Your task to perform on an android device: Go to accessibility settings Image 0: 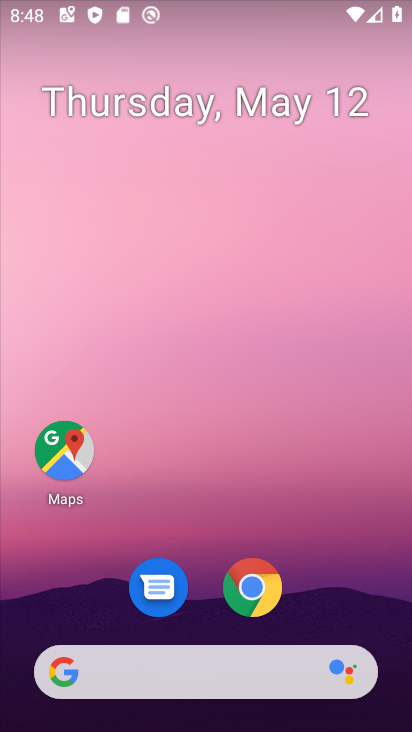
Step 0: drag from (326, 610) to (290, 220)
Your task to perform on an android device: Go to accessibility settings Image 1: 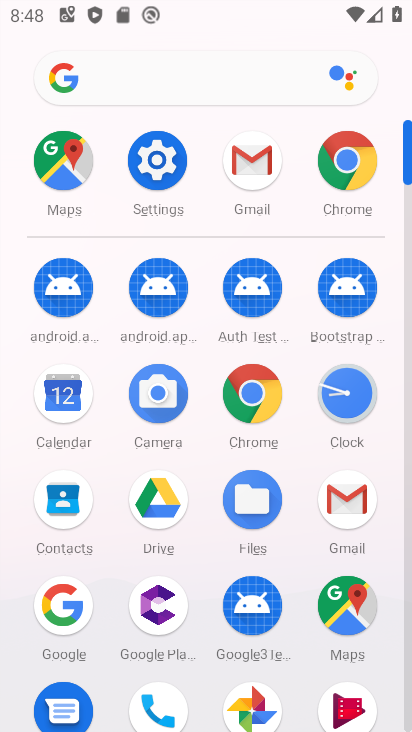
Step 1: click (168, 163)
Your task to perform on an android device: Go to accessibility settings Image 2: 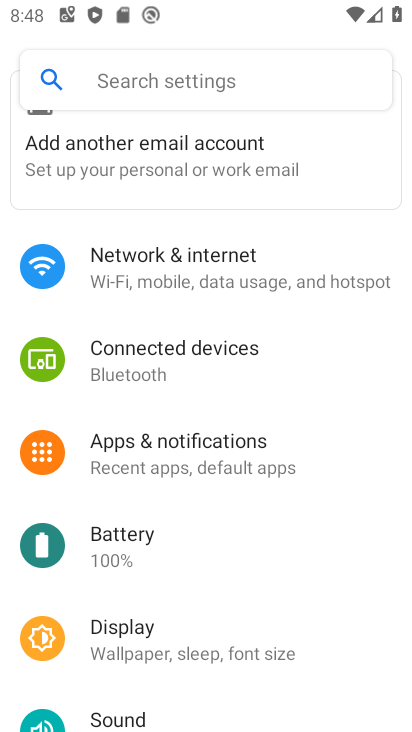
Step 2: drag from (217, 632) to (320, 116)
Your task to perform on an android device: Go to accessibility settings Image 3: 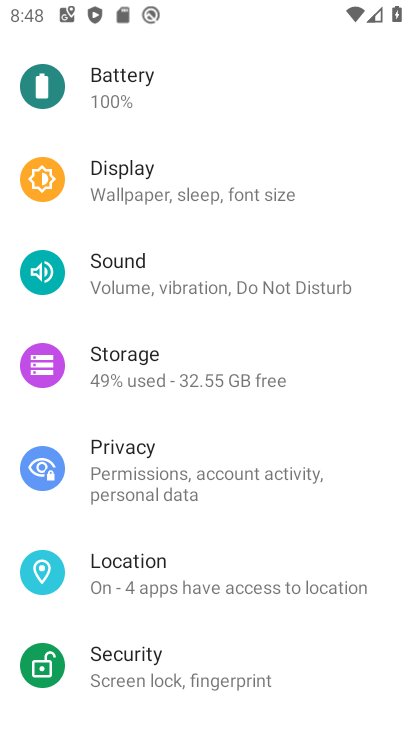
Step 3: drag from (234, 587) to (267, 63)
Your task to perform on an android device: Go to accessibility settings Image 4: 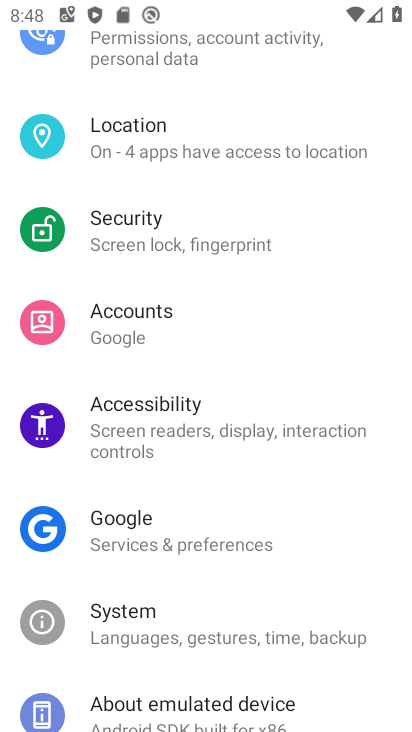
Step 4: click (161, 412)
Your task to perform on an android device: Go to accessibility settings Image 5: 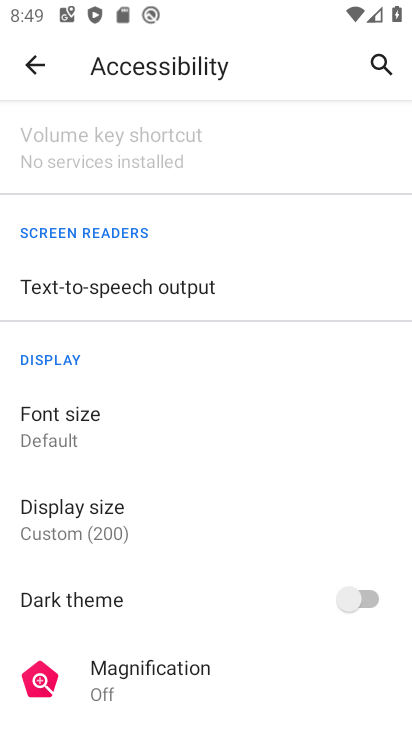
Step 5: task complete